Your task to perform on an android device: Open Chrome and go to the settings page Image 0: 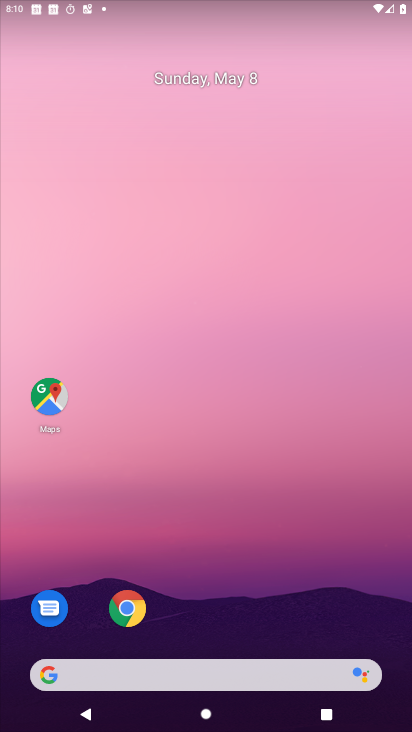
Step 0: click (131, 622)
Your task to perform on an android device: Open Chrome and go to the settings page Image 1: 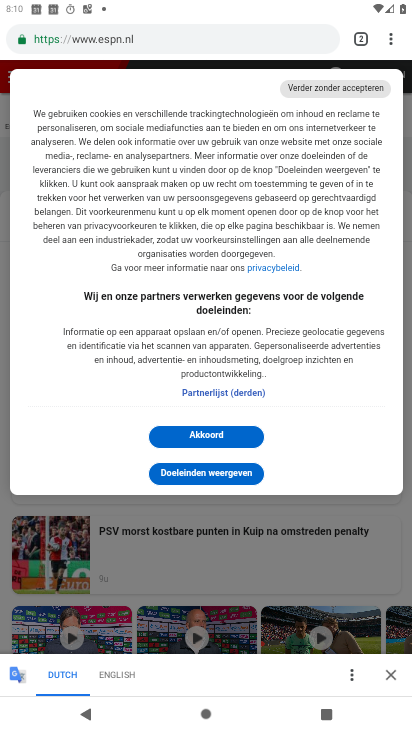
Step 1: task complete